Your task to perform on an android device: Open network settings Image 0: 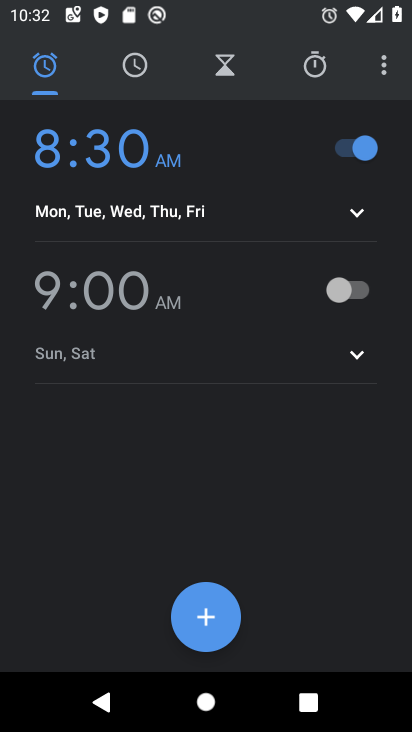
Step 0: press home button
Your task to perform on an android device: Open network settings Image 1: 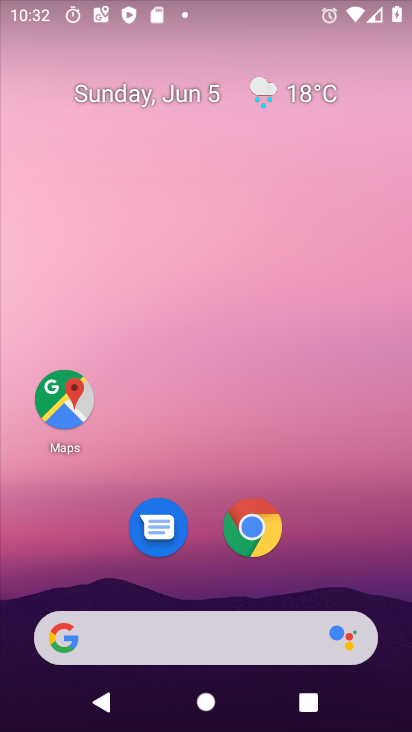
Step 1: drag from (364, 468) to (346, 0)
Your task to perform on an android device: Open network settings Image 2: 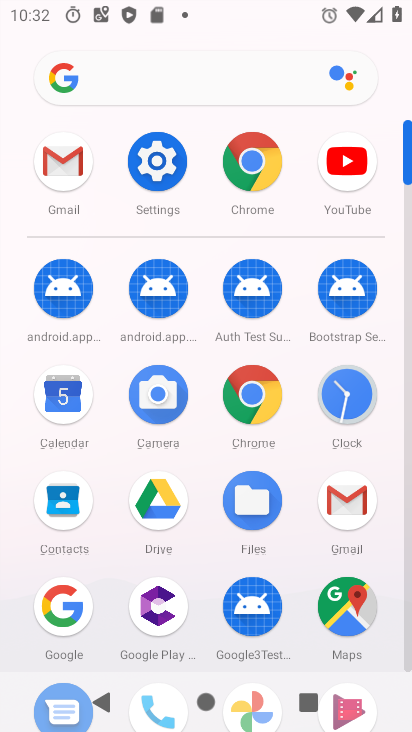
Step 2: click (156, 183)
Your task to perform on an android device: Open network settings Image 3: 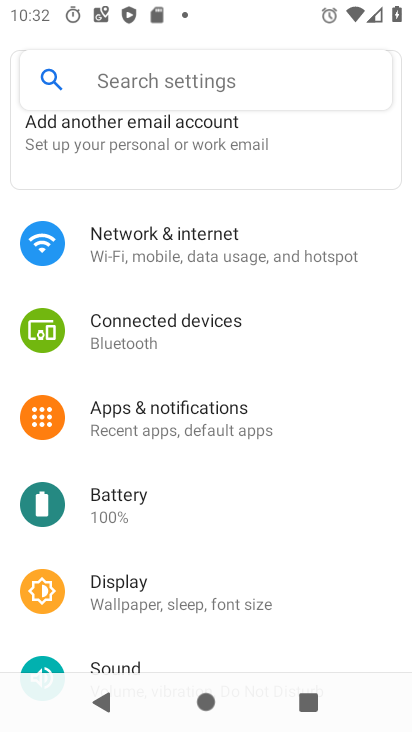
Step 3: drag from (156, 183) to (254, 549)
Your task to perform on an android device: Open network settings Image 4: 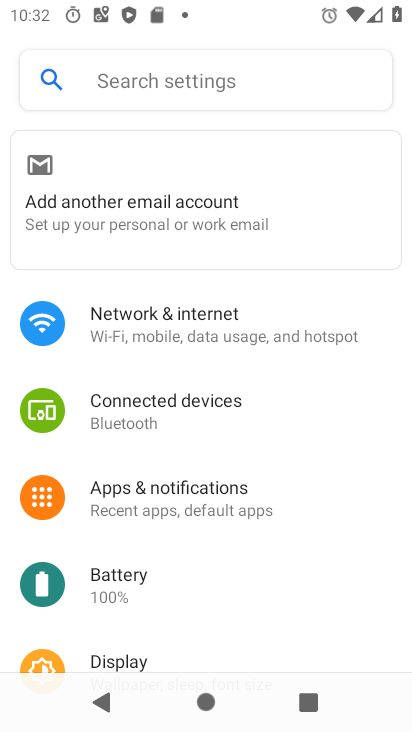
Step 4: click (186, 328)
Your task to perform on an android device: Open network settings Image 5: 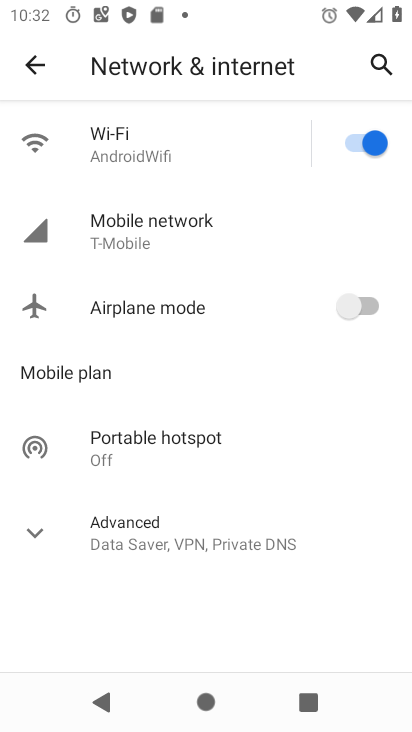
Step 5: task complete